Your task to perform on an android device: see creations saved in the google photos Image 0: 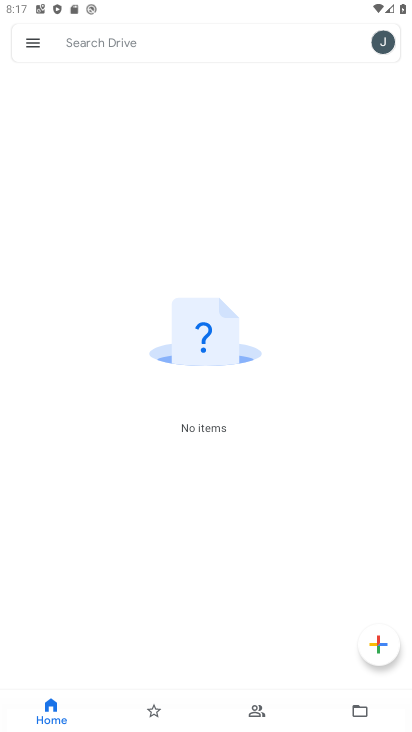
Step 0: press home button
Your task to perform on an android device: see creations saved in the google photos Image 1: 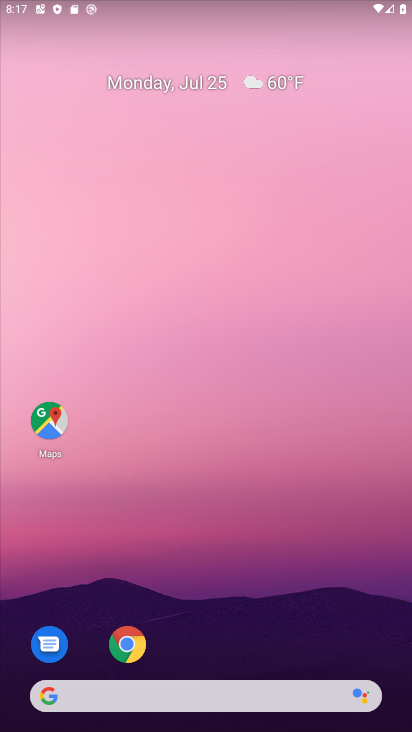
Step 1: drag from (294, 577) to (283, 230)
Your task to perform on an android device: see creations saved in the google photos Image 2: 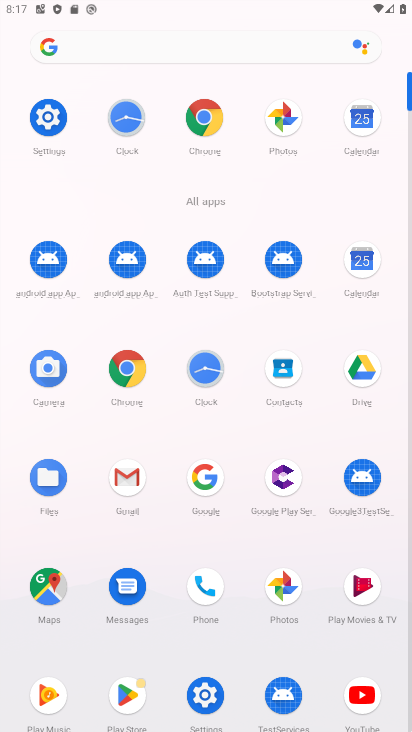
Step 2: click (281, 588)
Your task to perform on an android device: see creations saved in the google photos Image 3: 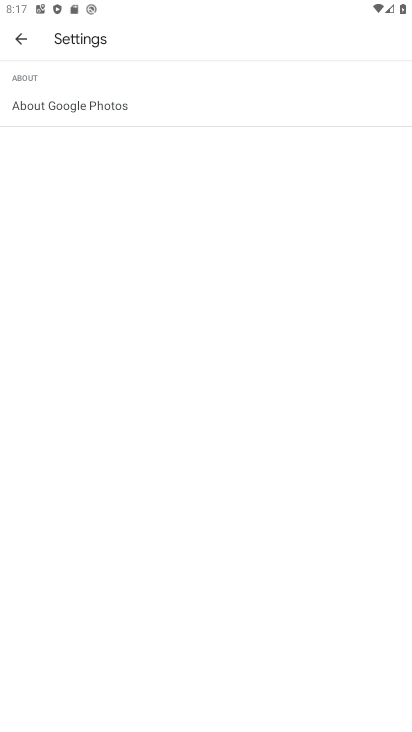
Step 3: task complete